Your task to perform on an android device: turn on location history Image 0: 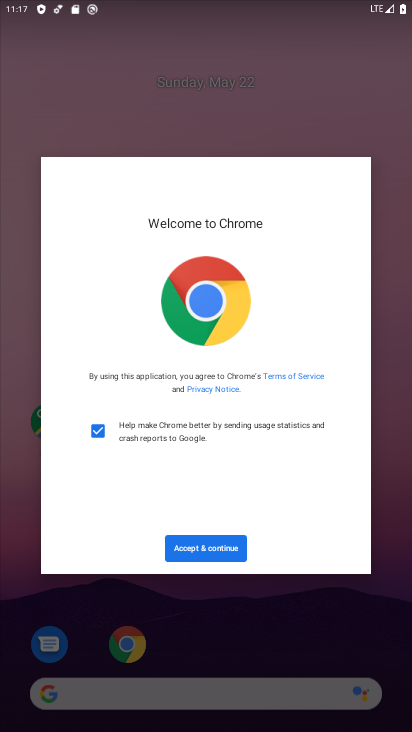
Step 0: press home button
Your task to perform on an android device: turn on location history Image 1: 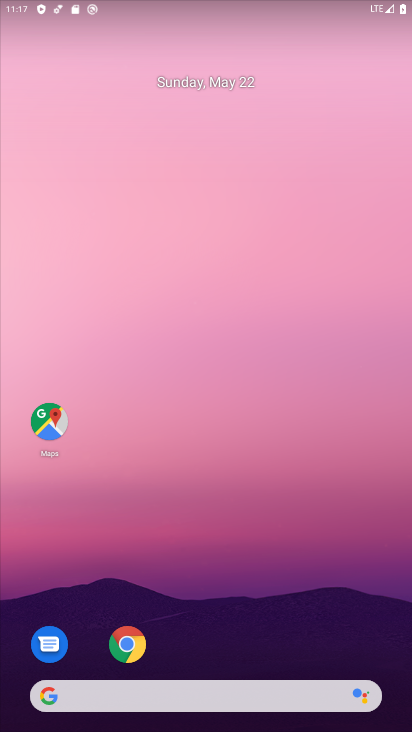
Step 1: drag from (337, 585) to (350, 25)
Your task to perform on an android device: turn on location history Image 2: 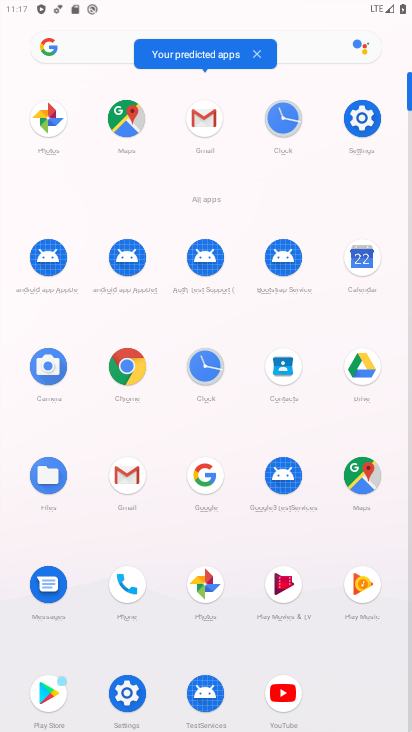
Step 2: click (358, 114)
Your task to perform on an android device: turn on location history Image 3: 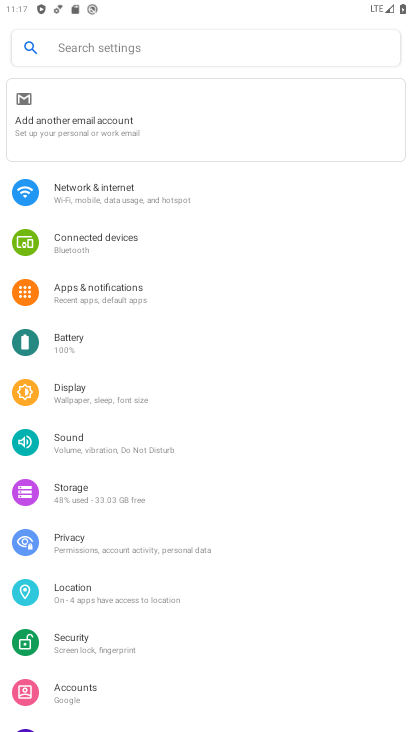
Step 3: click (129, 588)
Your task to perform on an android device: turn on location history Image 4: 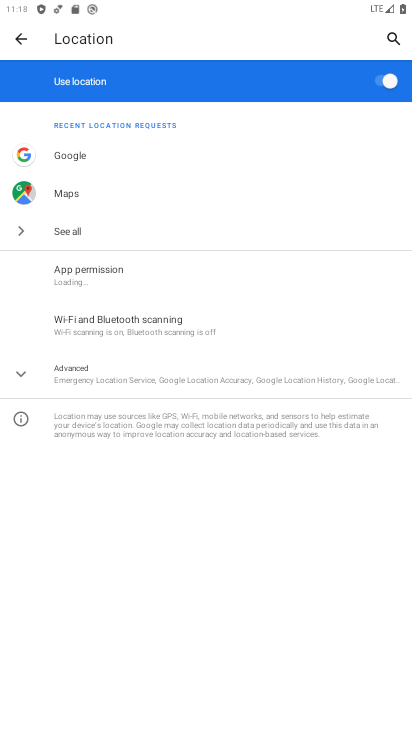
Step 4: click (136, 386)
Your task to perform on an android device: turn on location history Image 5: 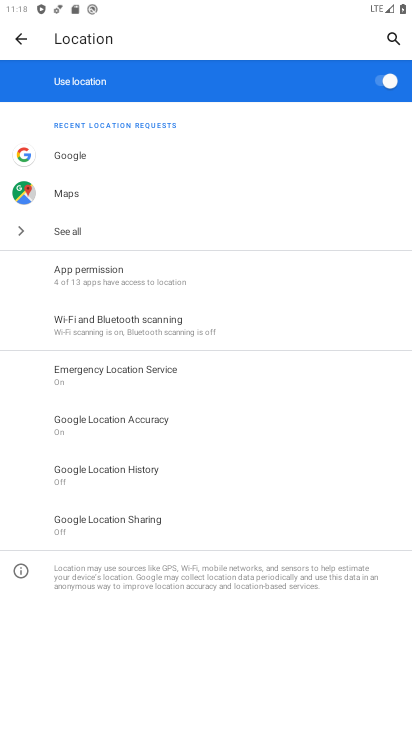
Step 5: click (141, 473)
Your task to perform on an android device: turn on location history Image 6: 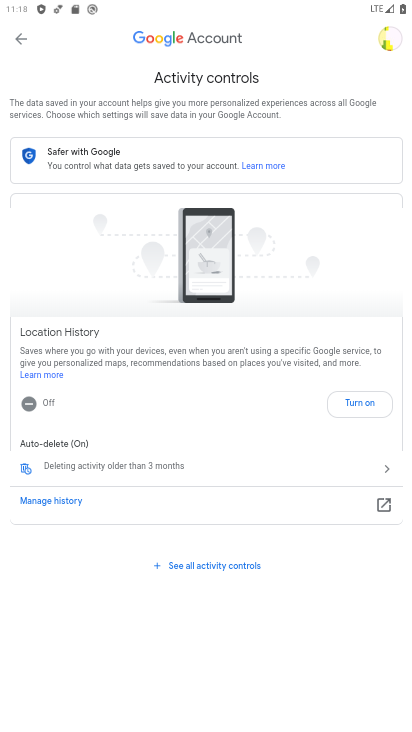
Step 6: click (361, 405)
Your task to perform on an android device: turn on location history Image 7: 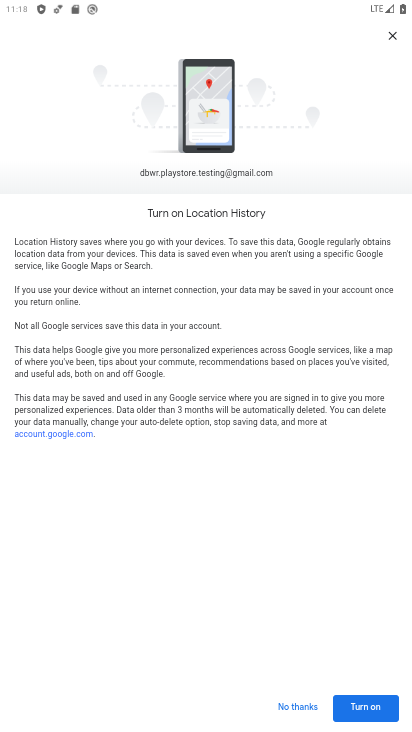
Step 7: click (369, 711)
Your task to perform on an android device: turn on location history Image 8: 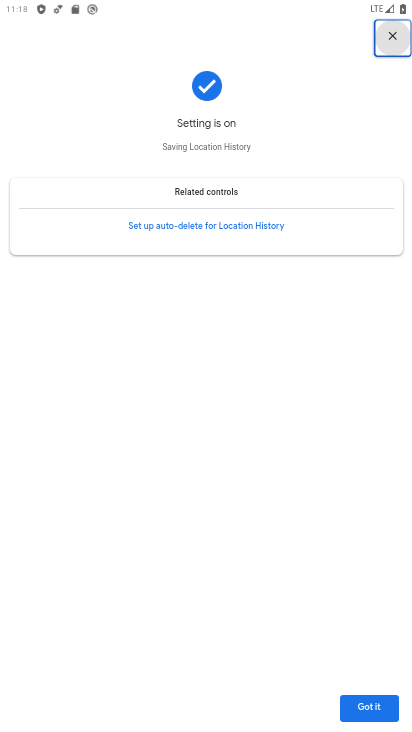
Step 8: click (369, 711)
Your task to perform on an android device: turn on location history Image 9: 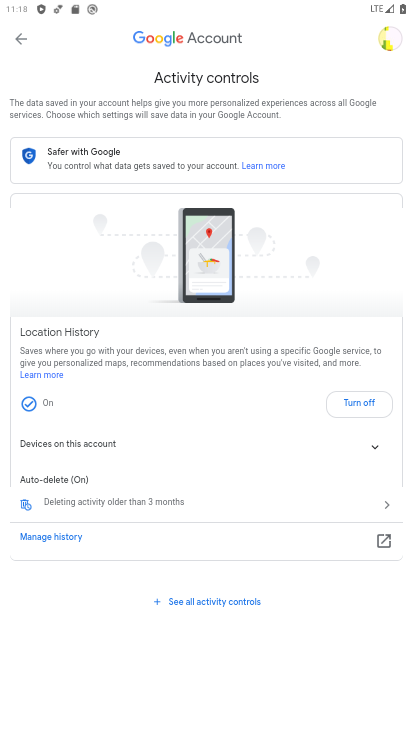
Step 9: task complete